Your task to perform on an android device: Open privacy settings Image 0: 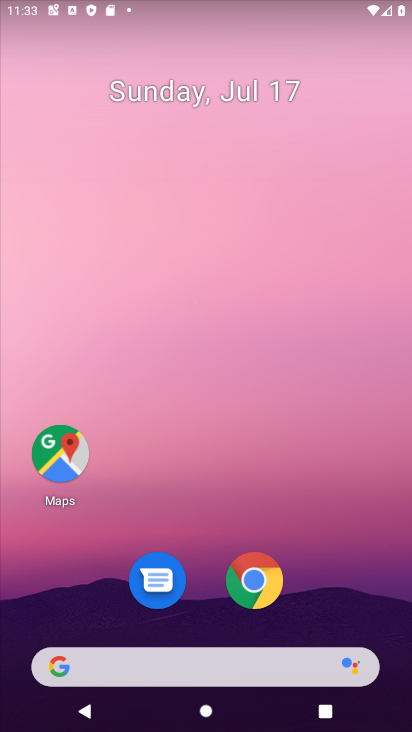
Step 0: drag from (226, 655) to (313, 188)
Your task to perform on an android device: Open privacy settings Image 1: 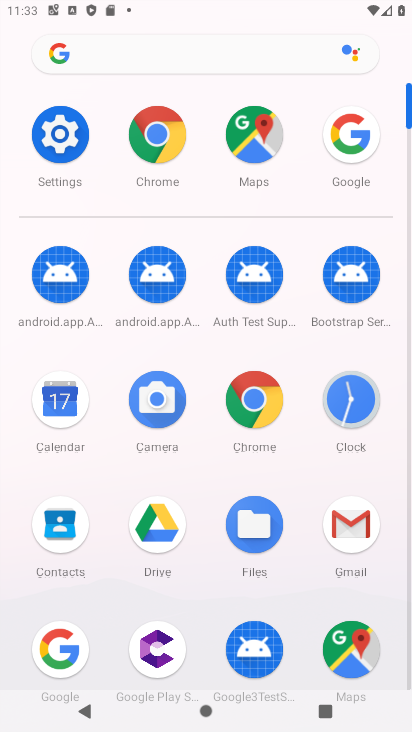
Step 1: click (52, 156)
Your task to perform on an android device: Open privacy settings Image 2: 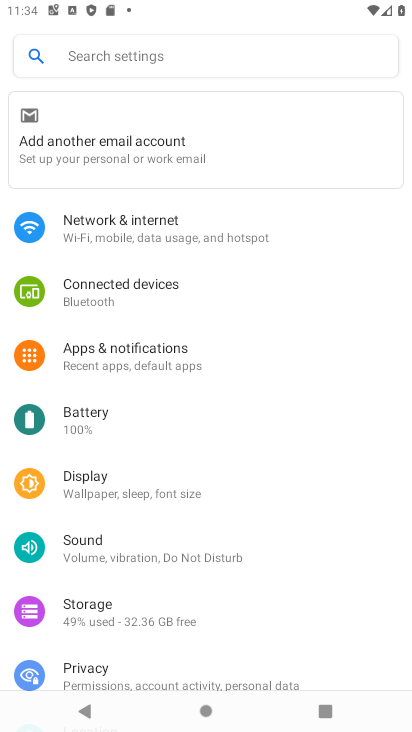
Step 2: drag from (229, 579) to (241, 378)
Your task to perform on an android device: Open privacy settings Image 3: 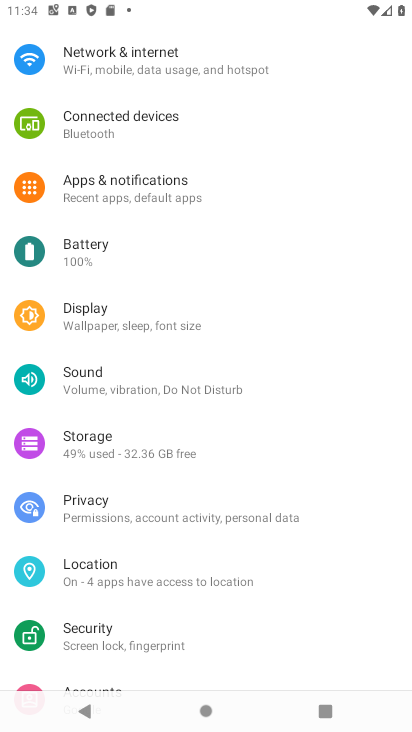
Step 3: click (126, 512)
Your task to perform on an android device: Open privacy settings Image 4: 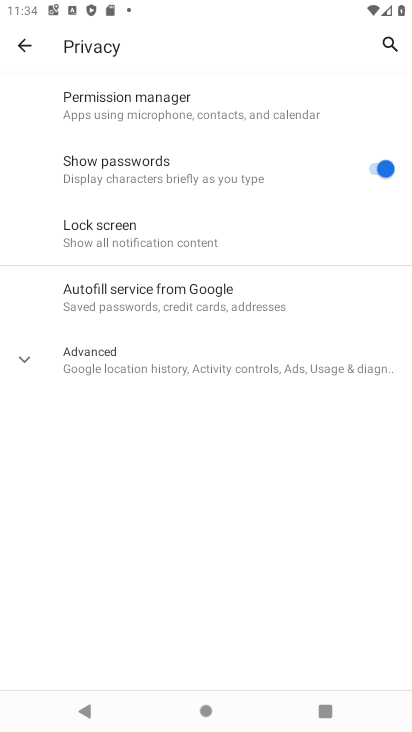
Step 4: task complete